Your task to perform on an android device: Search for sushi restaurants on Maps Image 0: 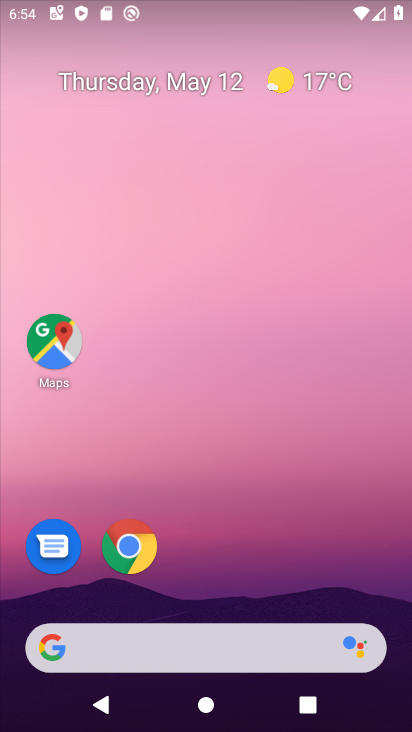
Step 0: click (43, 344)
Your task to perform on an android device: Search for sushi restaurants on Maps Image 1: 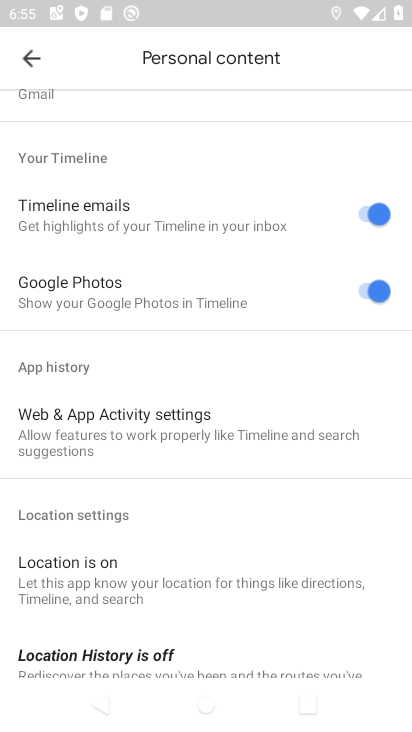
Step 1: click (19, 54)
Your task to perform on an android device: Search for sushi restaurants on Maps Image 2: 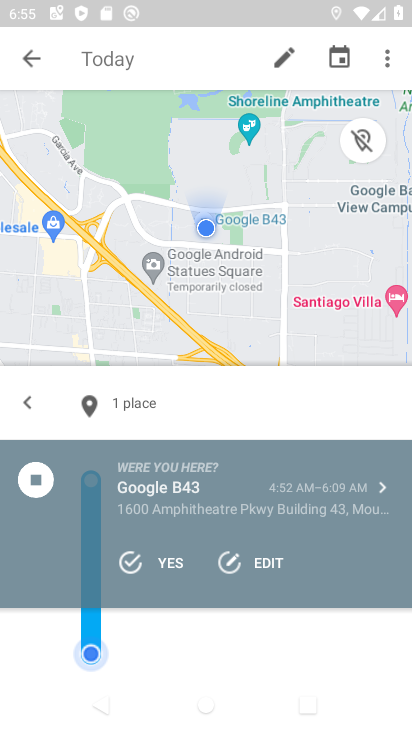
Step 2: click (38, 54)
Your task to perform on an android device: Search for sushi restaurants on Maps Image 3: 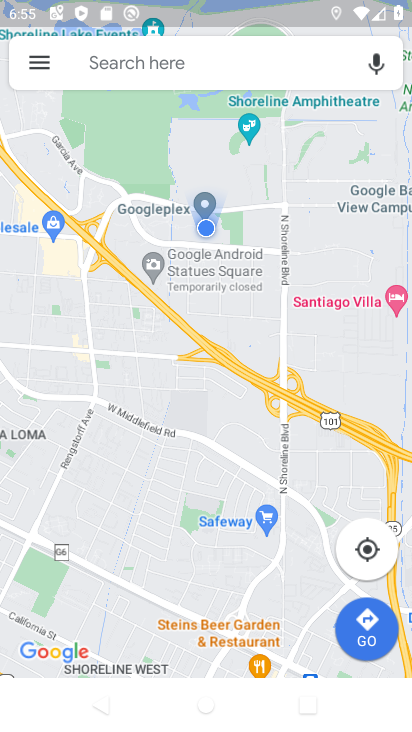
Step 3: click (176, 65)
Your task to perform on an android device: Search for sushi restaurants on Maps Image 4: 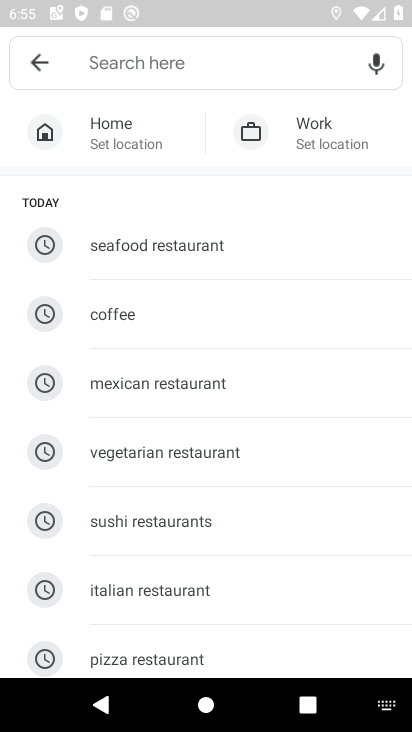
Step 4: click (177, 515)
Your task to perform on an android device: Search for sushi restaurants on Maps Image 5: 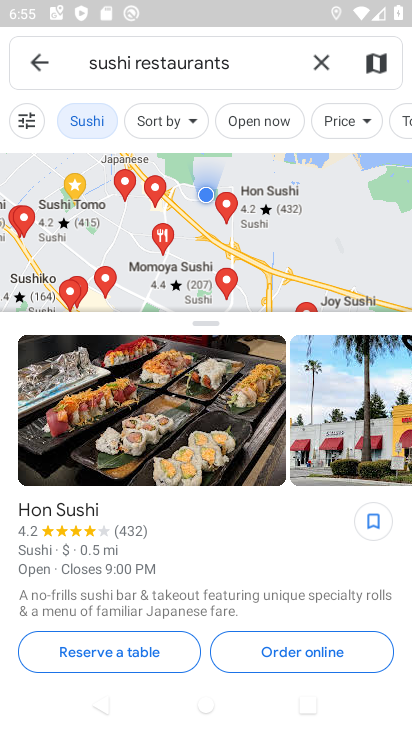
Step 5: task complete